Your task to perform on an android device: Open settings Image 0: 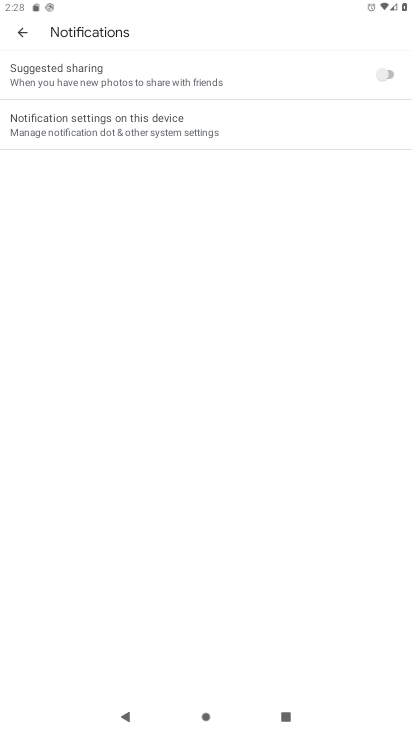
Step 0: press home button
Your task to perform on an android device: Open settings Image 1: 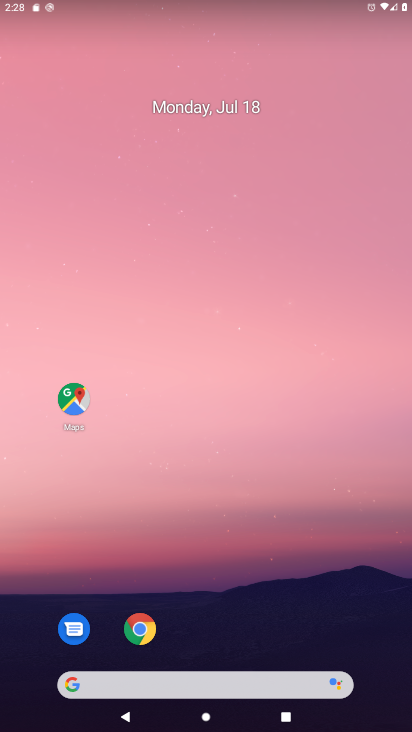
Step 1: drag from (209, 555) to (212, 250)
Your task to perform on an android device: Open settings Image 2: 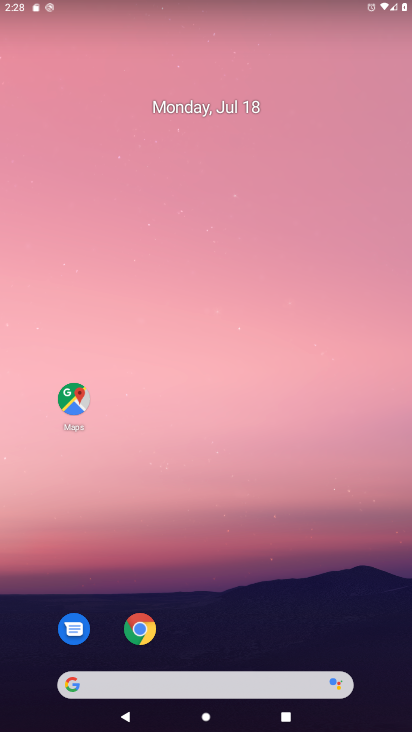
Step 2: drag from (186, 348) to (195, 168)
Your task to perform on an android device: Open settings Image 3: 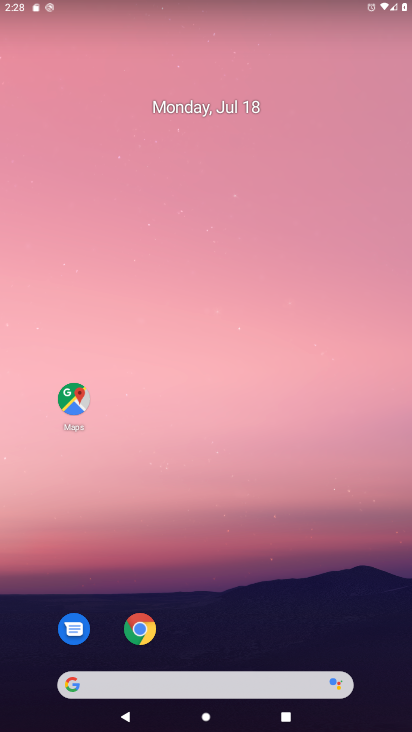
Step 3: drag from (195, 625) to (215, 137)
Your task to perform on an android device: Open settings Image 4: 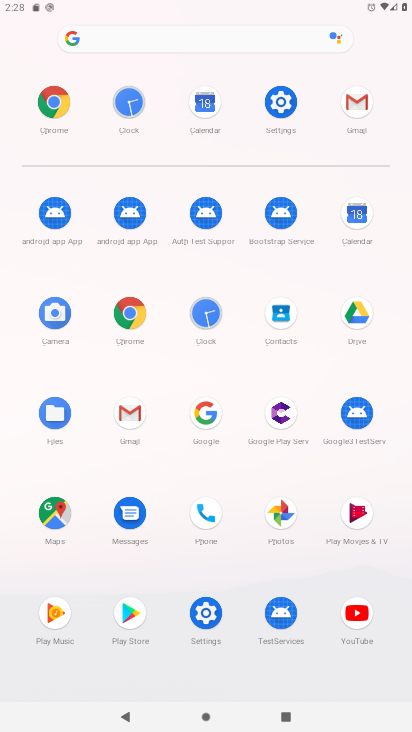
Step 4: click (273, 106)
Your task to perform on an android device: Open settings Image 5: 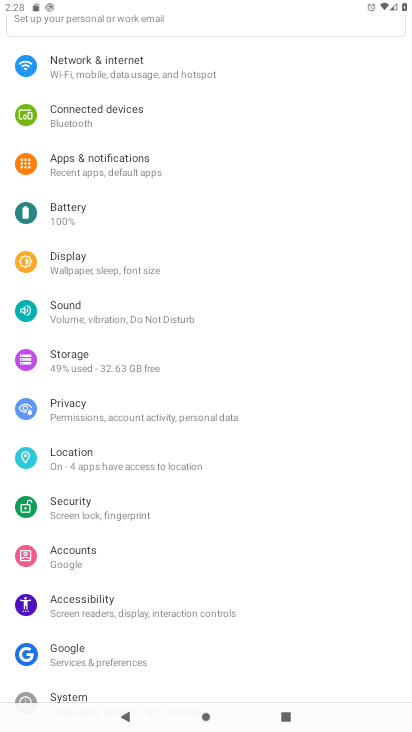
Step 5: task complete